Your task to perform on an android device: turn on improve location accuracy Image 0: 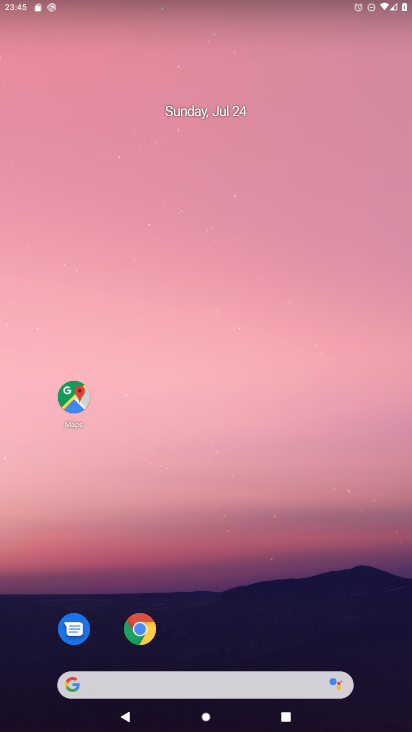
Step 0: drag from (171, 650) to (192, 77)
Your task to perform on an android device: turn on improve location accuracy Image 1: 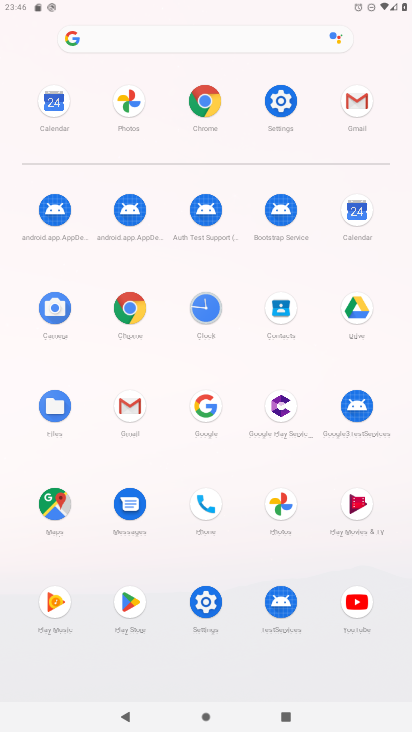
Step 1: click (269, 103)
Your task to perform on an android device: turn on improve location accuracy Image 2: 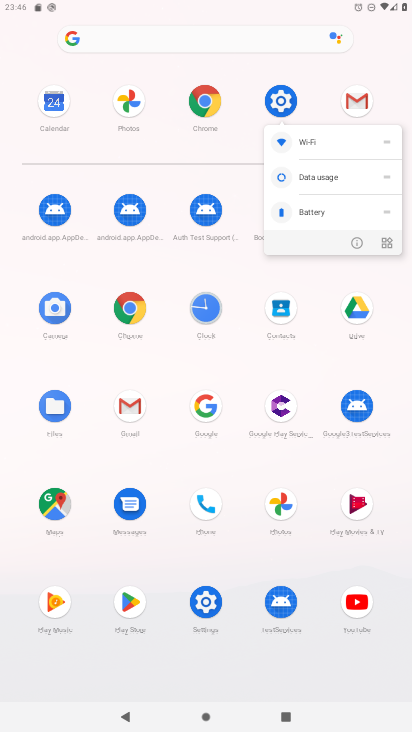
Step 2: click (357, 244)
Your task to perform on an android device: turn on improve location accuracy Image 3: 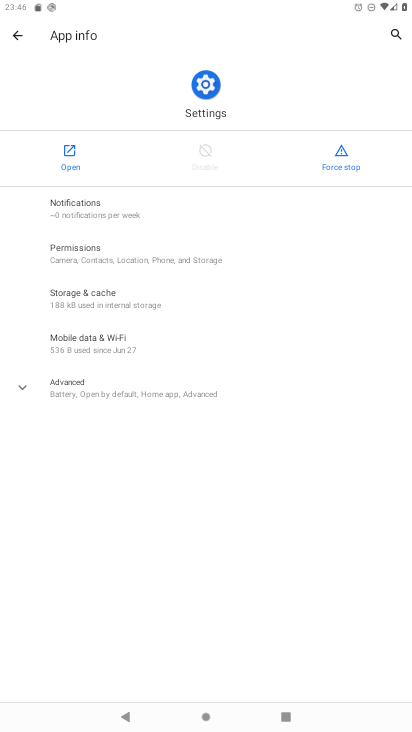
Step 3: click (72, 146)
Your task to perform on an android device: turn on improve location accuracy Image 4: 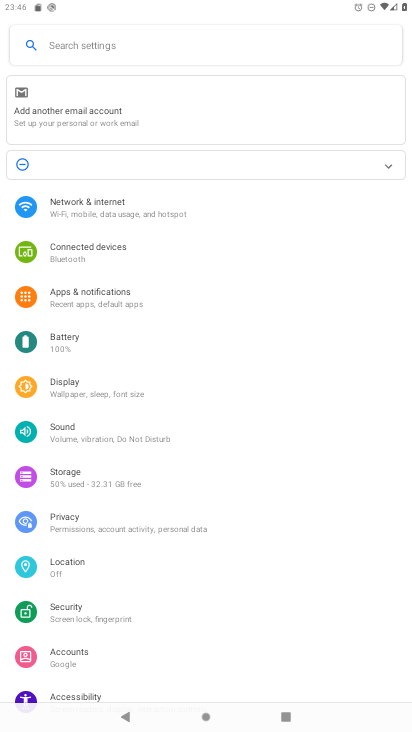
Step 4: click (89, 568)
Your task to perform on an android device: turn on improve location accuracy Image 5: 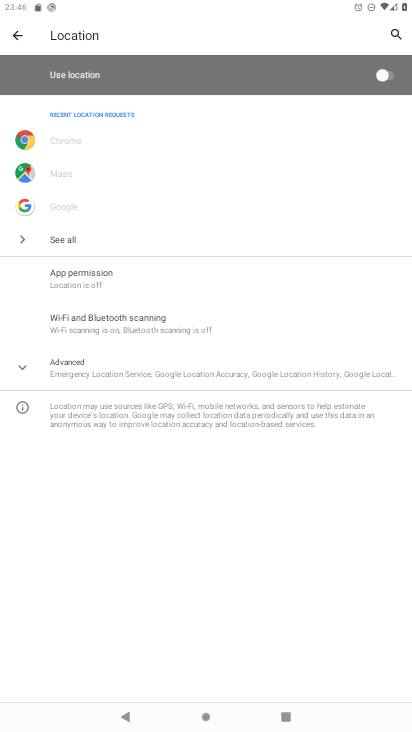
Step 5: click (87, 373)
Your task to perform on an android device: turn on improve location accuracy Image 6: 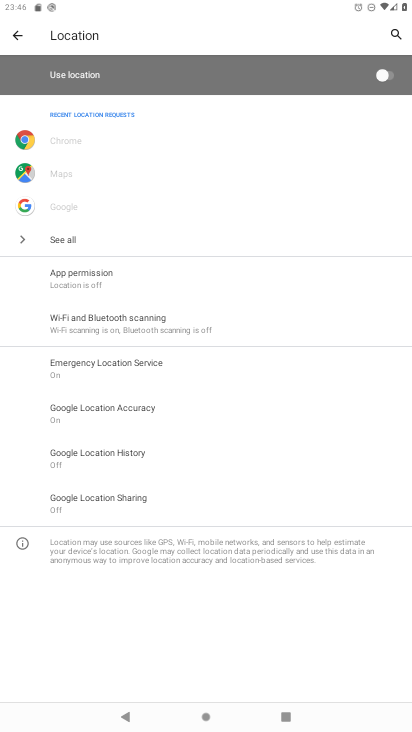
Step 6: click (128, 417)
Your task to perform on an android device: turn on improve location accuracy Image 7: 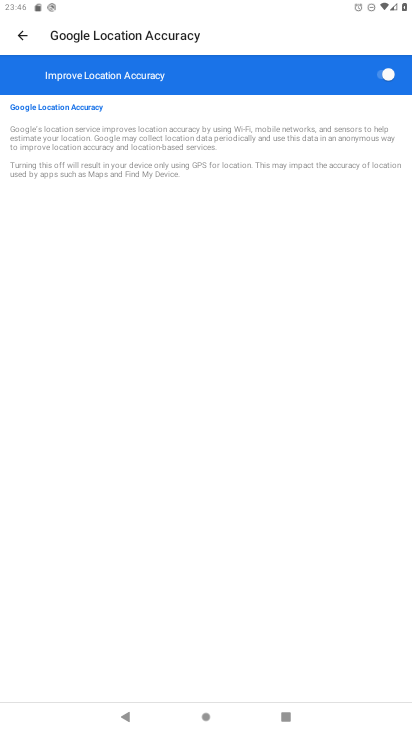
Step 7: task complete